Your task to perform on an android device: set the timer Image 0: 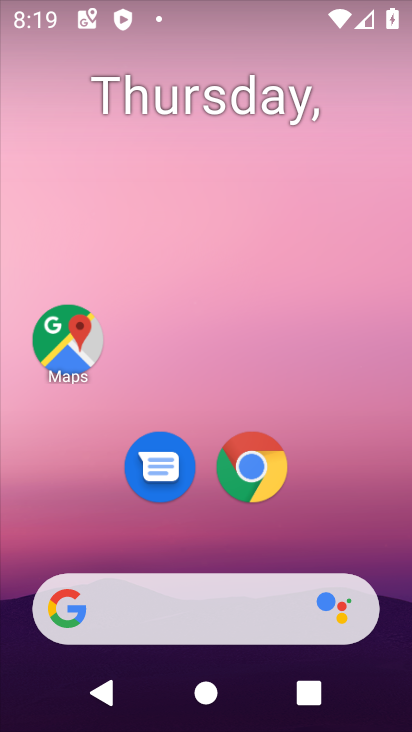
Step 0: drag from (321, 547) to (309, 261)
Your task to perform on an android device: set the timer Image 1: 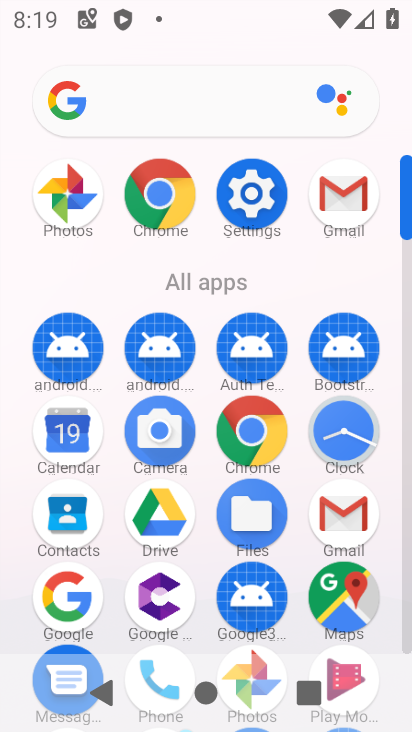
Step 1: click (349, 421)
Your task to perform on an android device: set the timer Image 2: 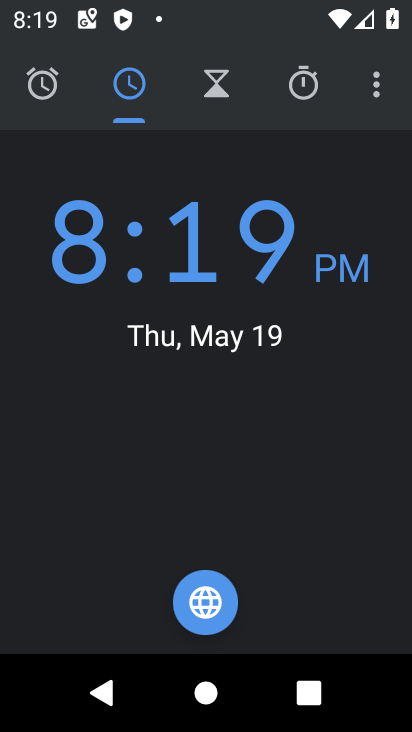
Step 2: click (311, 88)
Your task to perform on an android device: set the timer Image 3: 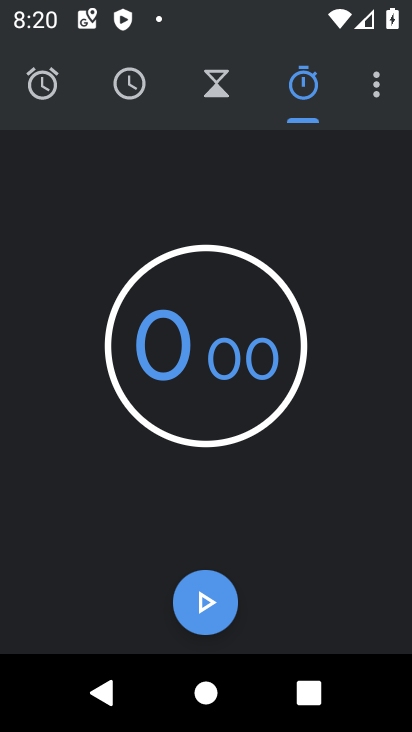
Step 3: click (214, 87)
Your task to perform on an android device: set the timer Image 4: 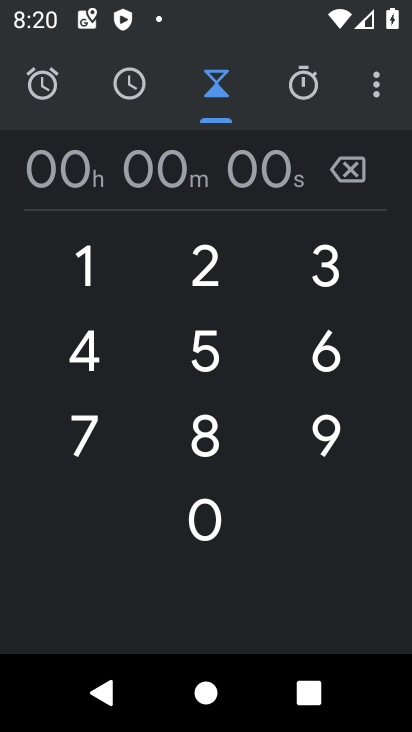
Step 4: click (217, 152)
Your task to perform on an android device: set the timer Image 5: 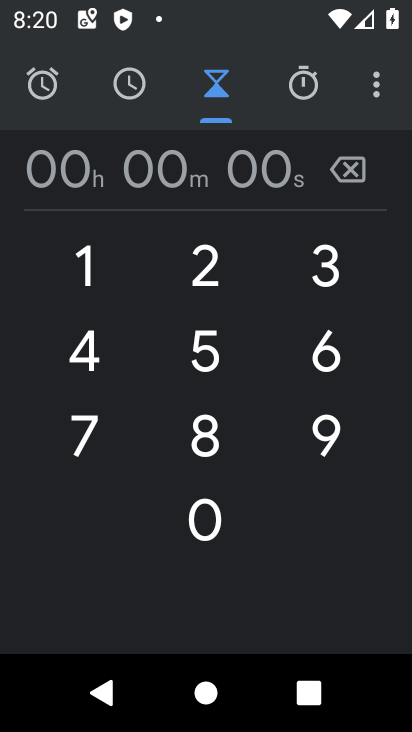
Step 5: type "898989899"
Your task to perform on an android device: set the timer Image 6: 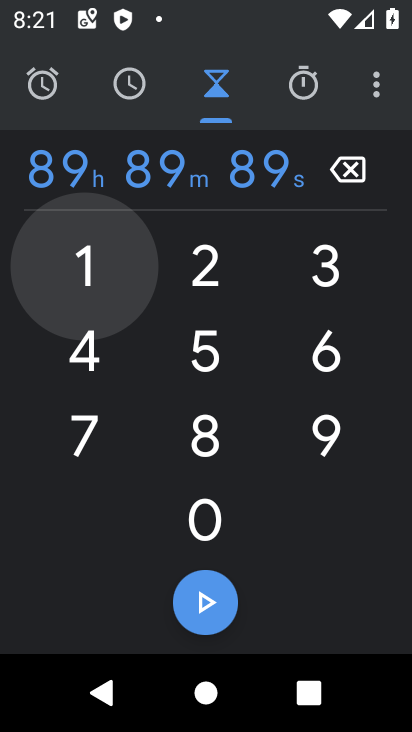
Step 6: task complete